Your task to perform on an android device: Do I have any events today? Image 0: 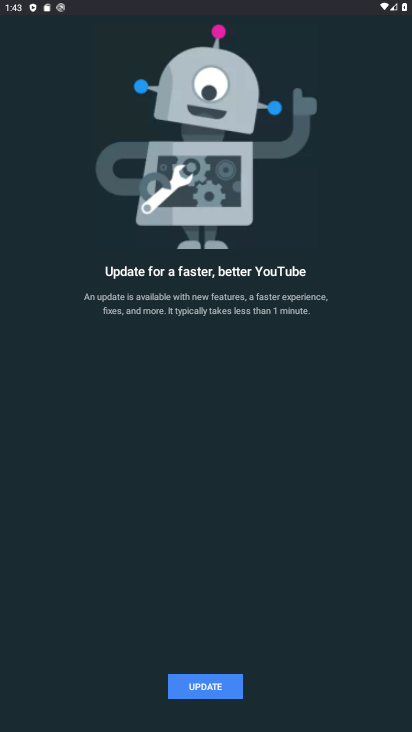
Step 0: press home button
Your task to perform on an android device: Do I have any events today? Image 1: 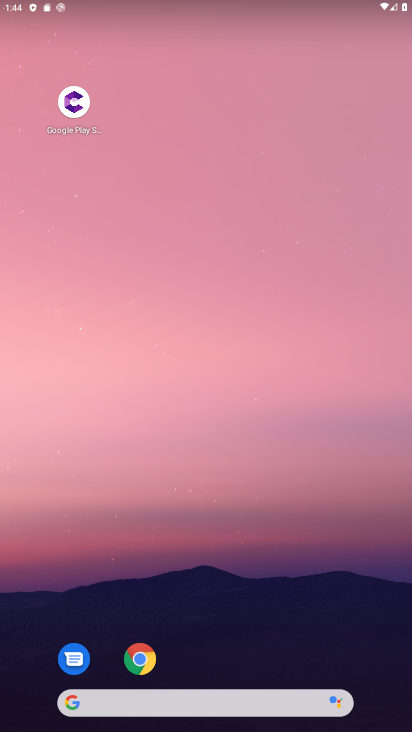
Step 1: drag from (361, 655) to (252, 93)
Your task to perform on an android device: Do I have any events today? Image 2: 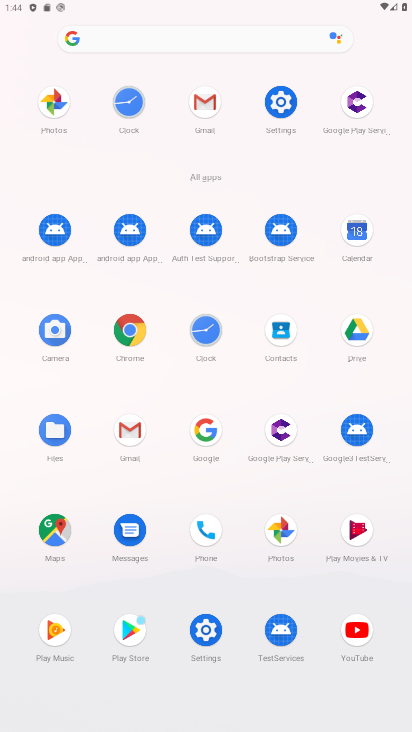
Step 2: click (363, 238)
Your task to perform on an android device: Do I have any events today? Image 3: 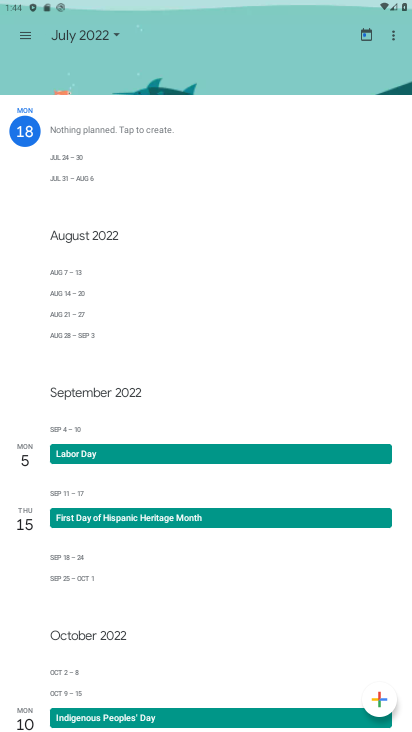
Step 3: click (21, 30)
Your task to perform on an android device: Do I have any events today? Image 4: 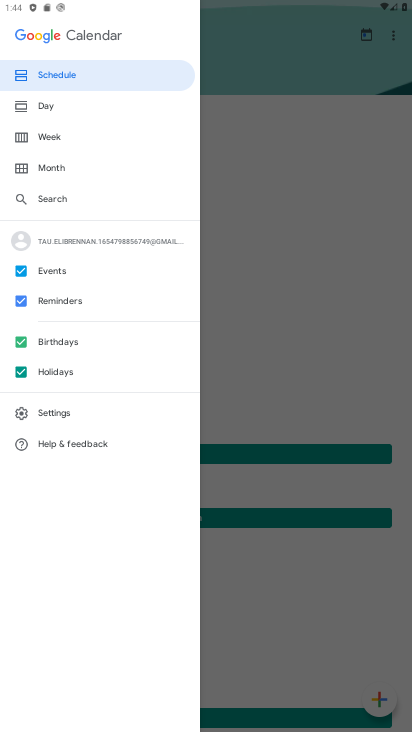
Step 4: click (20, 369)
Your task to perform on an android device: Do I have any events today? Image 5: 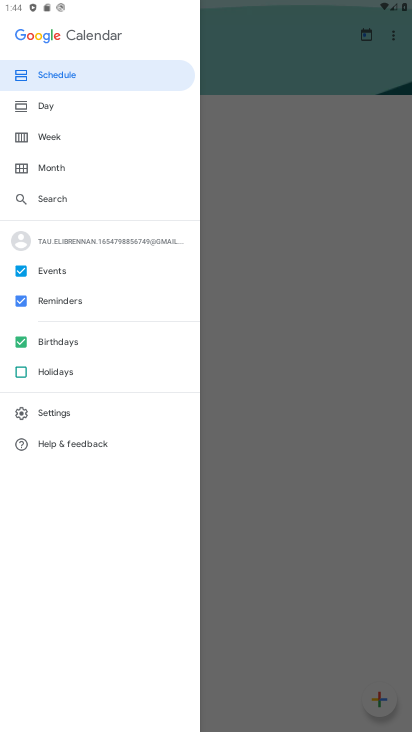
Step 5: click (22, 339)
Your task to perform on an android device: Do I have any events today? Image 6: 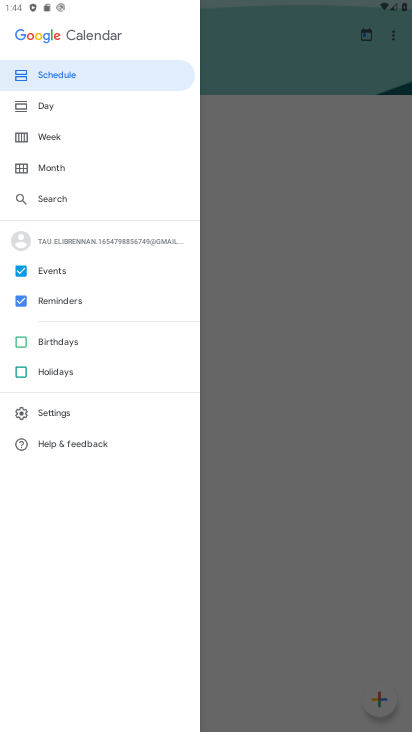
Step 6: click (21, 301)
Your task to perform on an android device: Do I have any events today? Image 7: 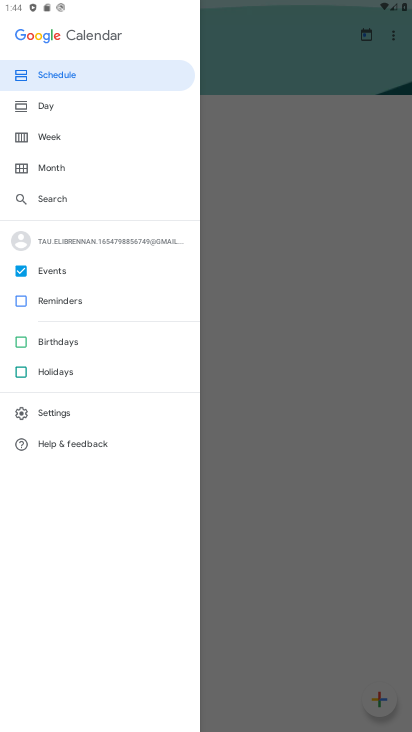
Step 7: click (58, 105)
Your task to perform on an android device: Do I have any events today? Image 8: 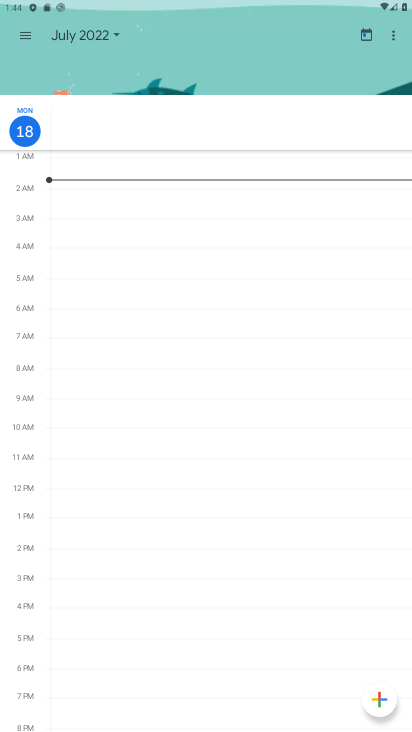
Step 8: task complete